Your task to perform on an android device: Search for Mexican restaurants on Maps Image 0: 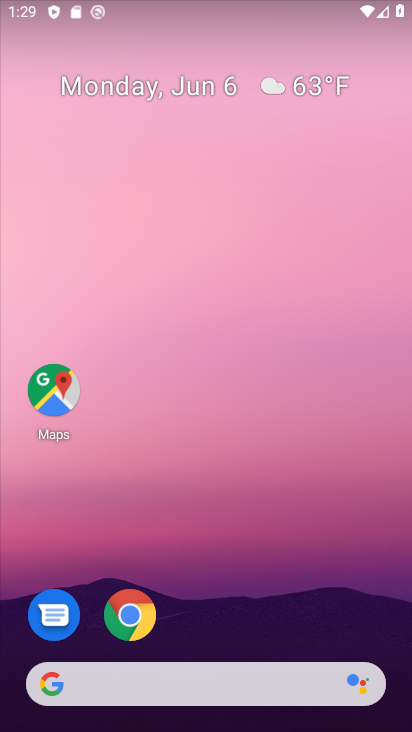
Step 0: click (56, 413)
Your task to perform on an android device: Search for Mexican restaurants on Maps Image 1: 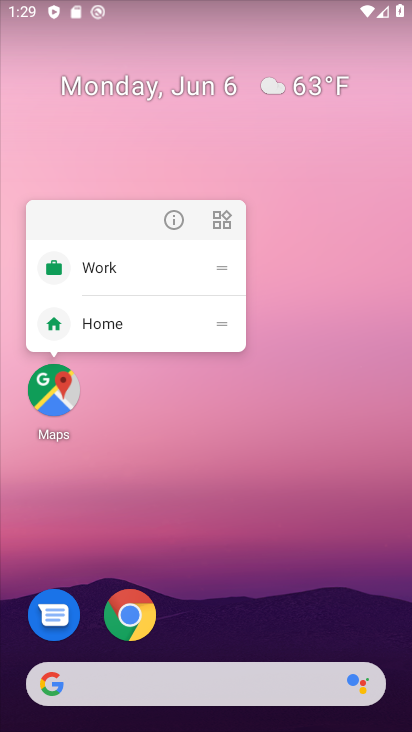
Step 1: click (56, 413)
Your task to perform on an android device: Search for Mexican restaurants on Maps Image 2: 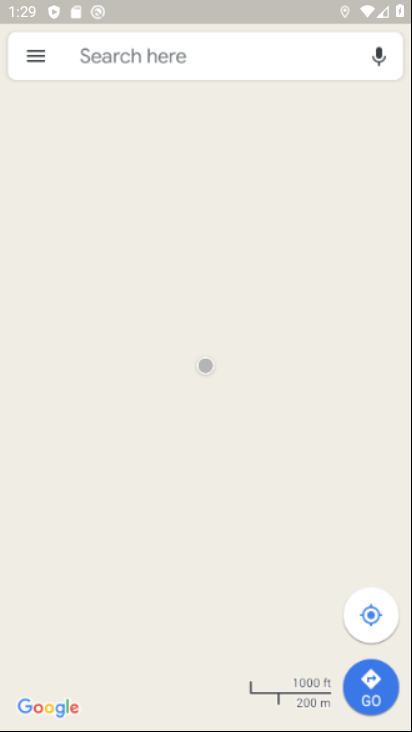
Step 2: click (186, 53)
Your task to perform on an android device: Search for Mexican restaurants on Maps Image 3: 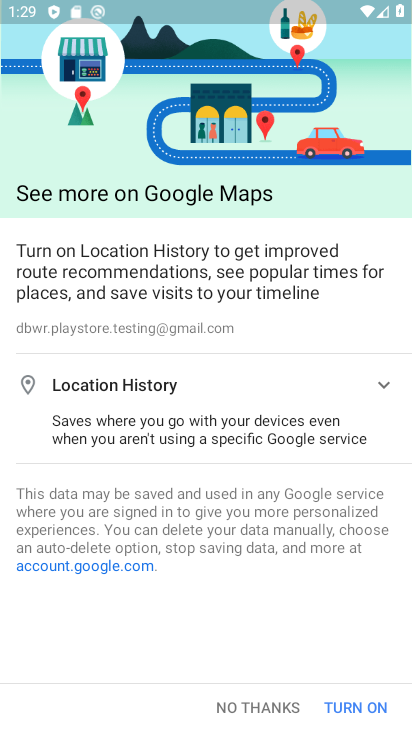
Step 3: click (264, 718)
Your task to perform on an android device: Search for Mexican restaurants on Maps Image 4: 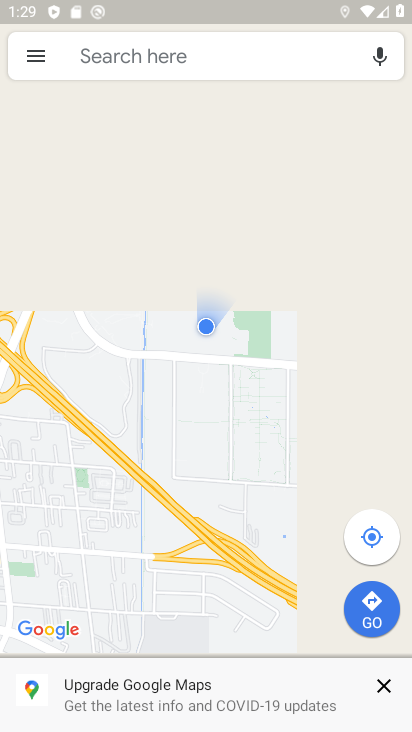
Step 4: click (388, 690)
Your task to perform on an android device: Search for Mexican restaurants on Maps Image 5: 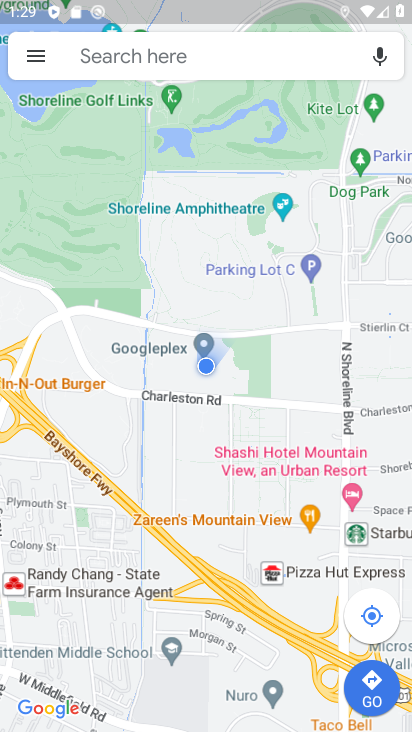
Step 5: click (210, 58)
Your task to perform on an android device: Search for Mexican restaurants on Maps Image 6: 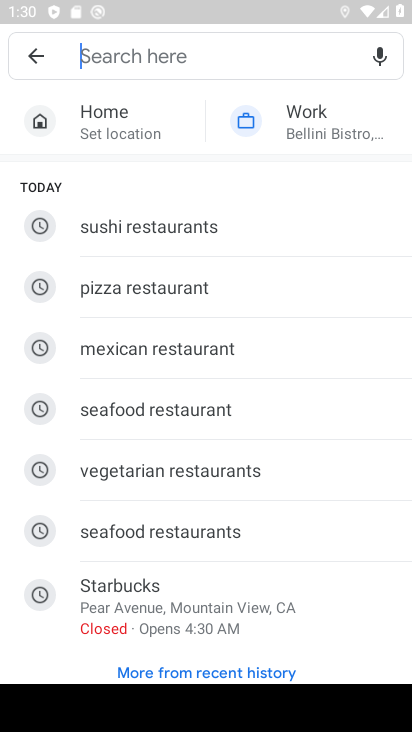
Step 6: type "Mexican restaurants"
Your task to perform on an android device: Search for Mexican restaurants on Maps Image 7: 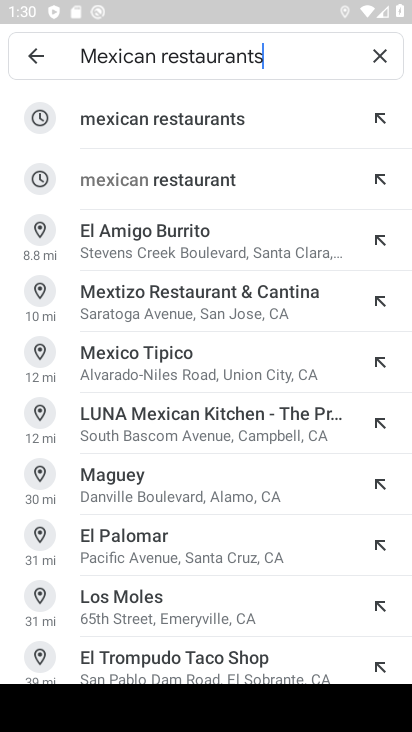
Step 7: click (223, 134)
Your task to perform on an android device: Search for Mexican restaurants on Maps Image 8: 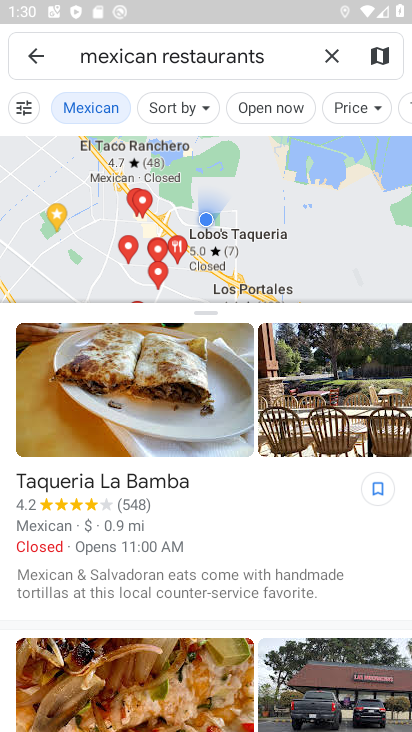
Step 8: task complete